Your task to perform on an android device: turn off translation in the chrome app Image 0: 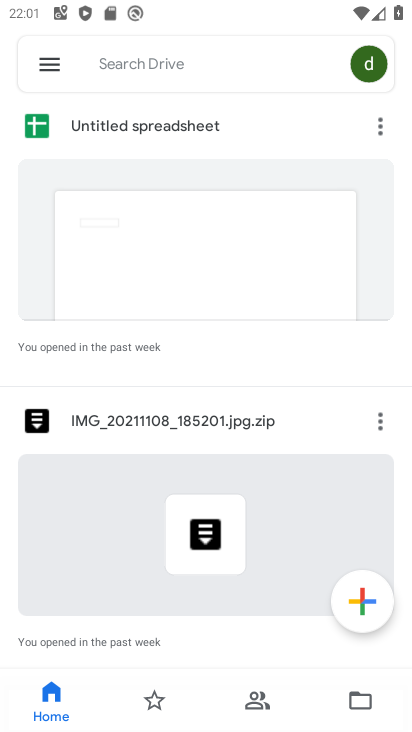
Step 0: press home button
Your task to perform on an android device: turn off translation in the chrome app Image 1: 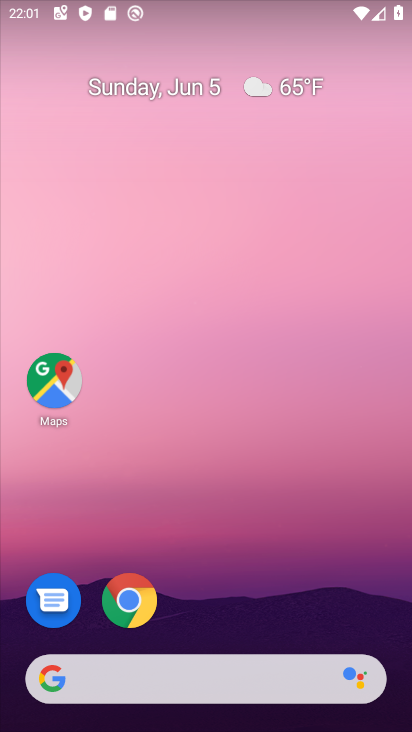
Step 1: click (130, 605)
Your task to perform on an android device: turn off translation in the chrome app Image 2: 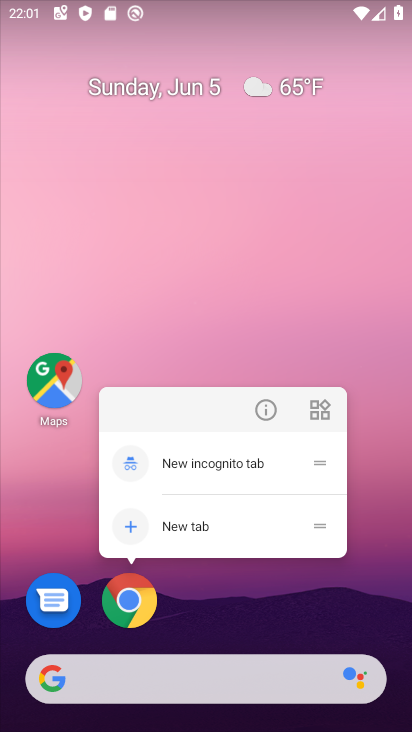
Step 2: click (334, 625)
Your task to perform on an android device: turn off translation in the chrome app Image 3: 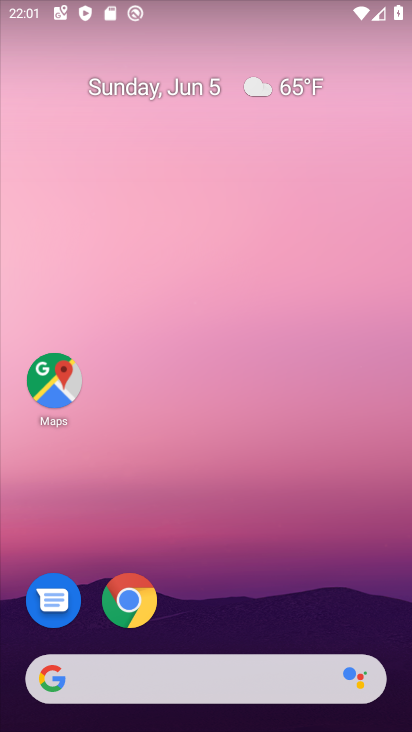
Step 3: drag from (334, 622) to (358, 213)
Your task to perform on an android device: turn off translation in the chrome app Image 4: 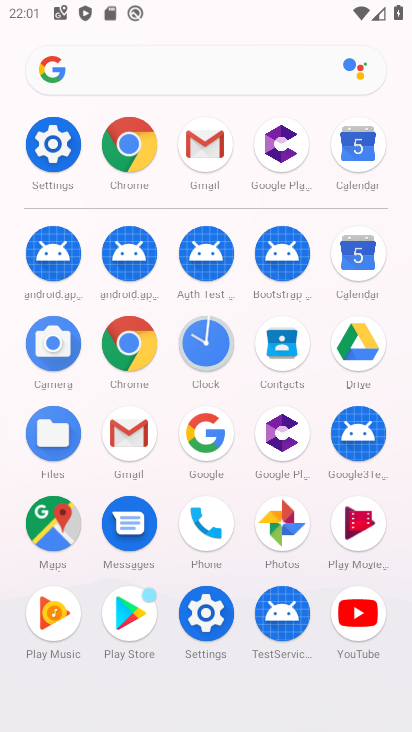
Step 4: click (131, 337)
Your task to perform on an android device: turn off translation in the chrome app Image 5: 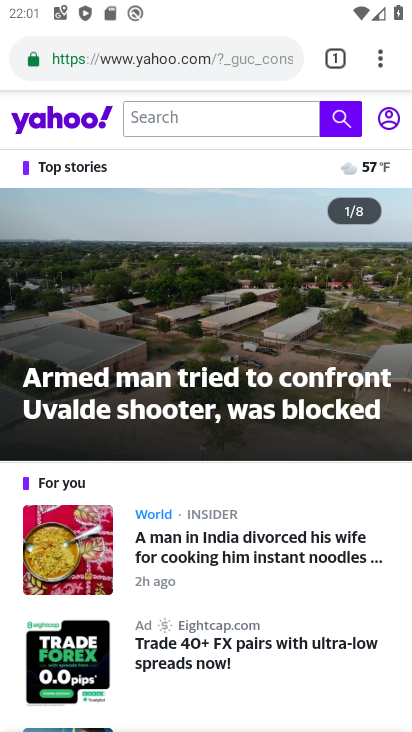
Step 5: drag from (388, 54) to (285, 640)
Your task to perform on an android device: turn off translation in the chrome app Image 6: 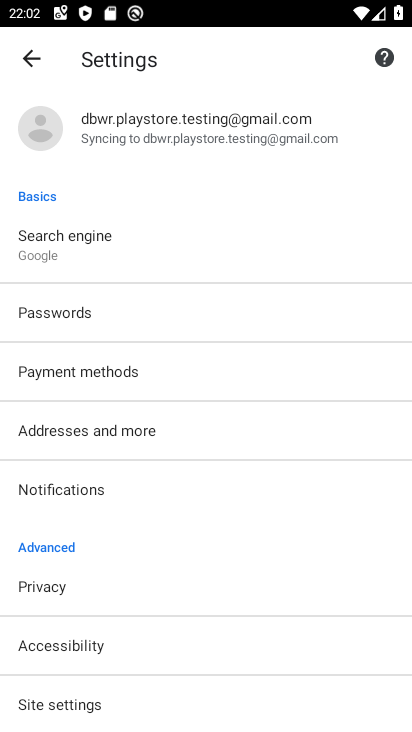
Step 6: drag from (244, 593) to (285, 155)
Your task to perform on an android device: turn off translation in the chrome app Image 7: 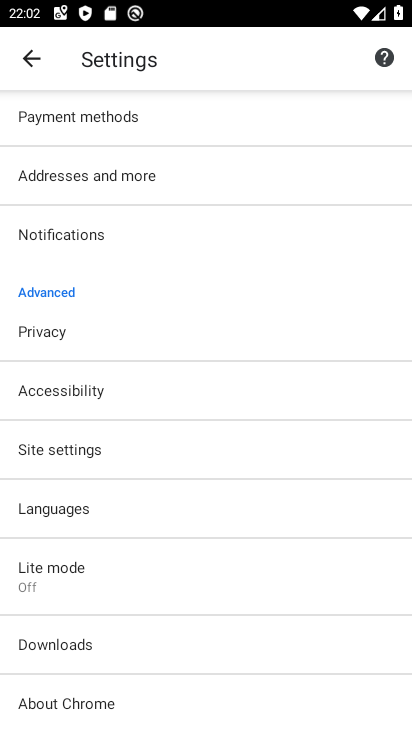
Step 7: click (57, 510)
Your task to perform on an android device: turn off translation in the chrome app Image 8: 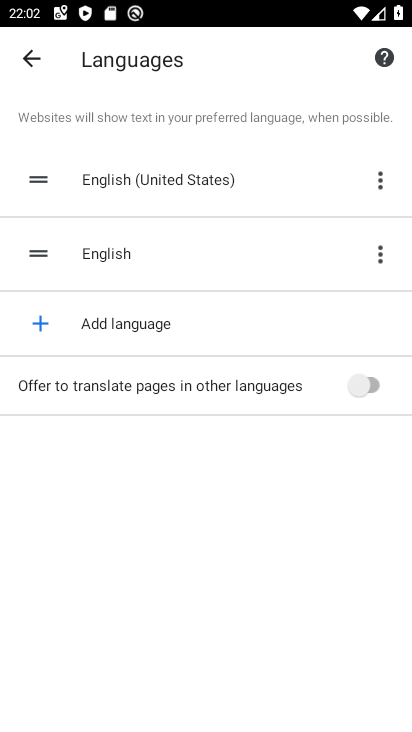
Step 8: task complete